Your task to perform on an android device: turn on notifications settings in the gmail app Image 0: 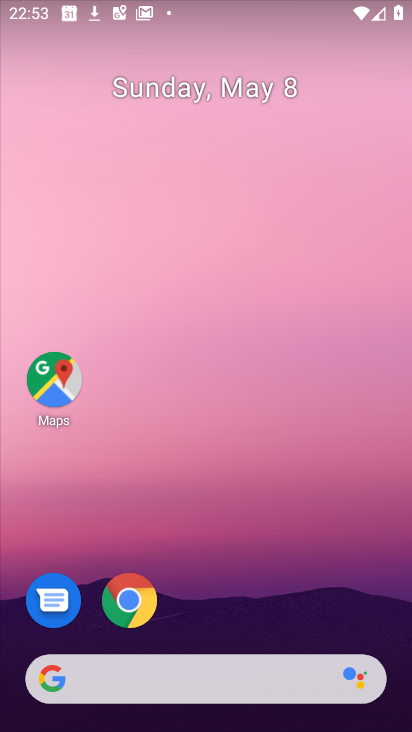
Step 0: drag from (244, 713) to (299, 204)
Your task to perform on an android device: turn on notifications settings in the gmail app Image 1: 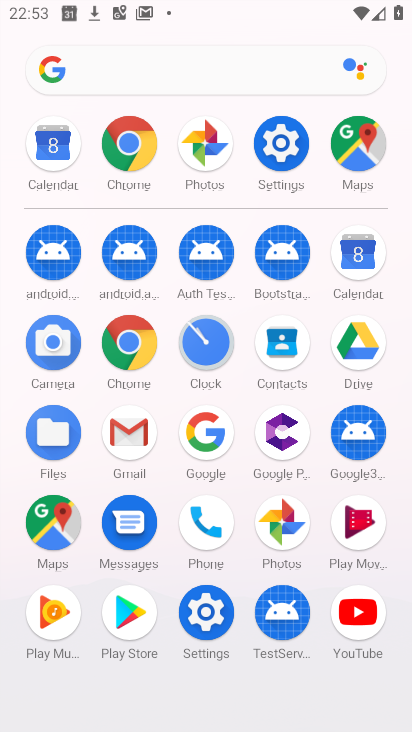
Step 1: click (214, 593)
Your task to perform on an android device: turn on notifications settings in the gmail app Image 2: 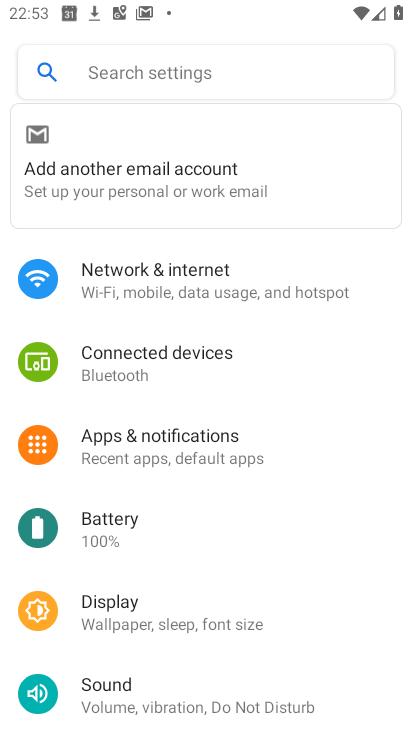
Step 2: press home button
Your task to perform on an android device: turn on notifications settings in the gmail app Image 3: 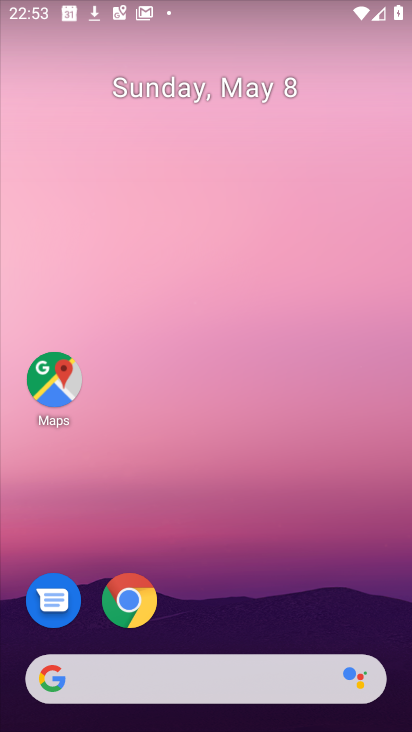
Step 3: drag from (219, 729) to (381, 153)
Your task to perform on an android device: turn on notifications settings in the gmail app Image 4: 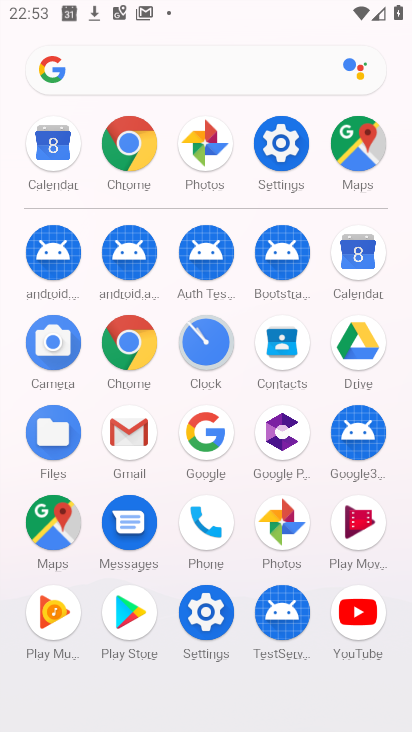
Step 4: click (146, 421)
Your task to perform on an android device: turn on notifications settings in the gmail app Image 5: 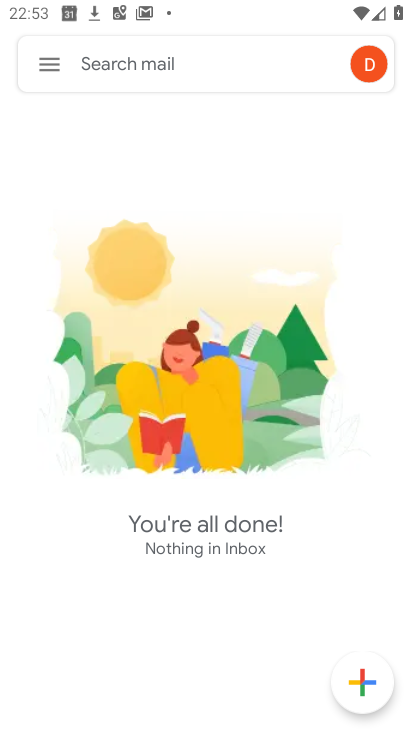
Step 5: click (37, 69)
Your task to perform on an android device: turn on notifications settings in the gmail app Image 6: 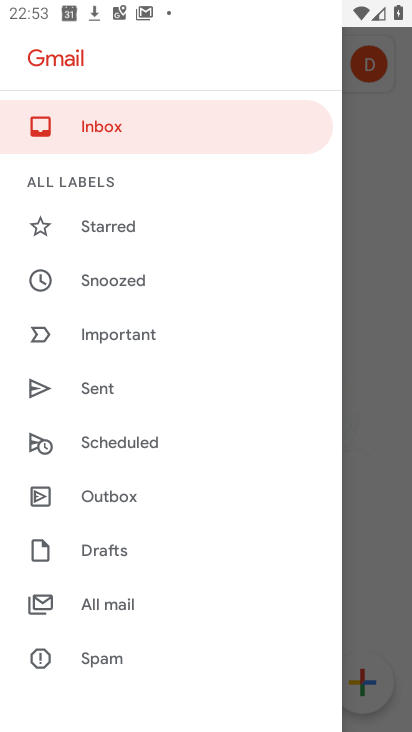
Step 6: drag from (102, 569) to (167, 354)
Your task to perform on an android device: turn on notifications settings in the gmail app Image 7: 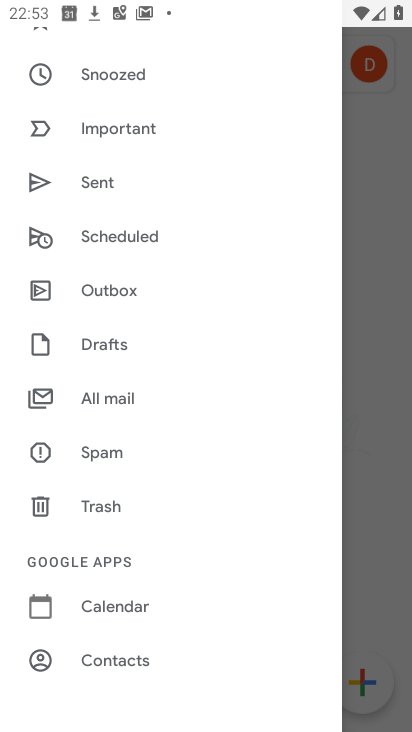
Step 7: drag from (102, 525) to (165, 403)
Your task to perform on an android device: turn on notifications settings in the gmail app Image 8: 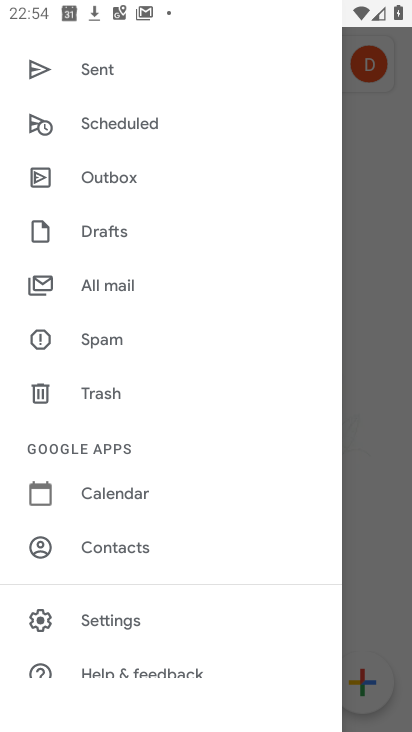
Step 8: click (125, 645)
Your task to perform on an android device: turn on notifications settings in the gmail app Image 9: 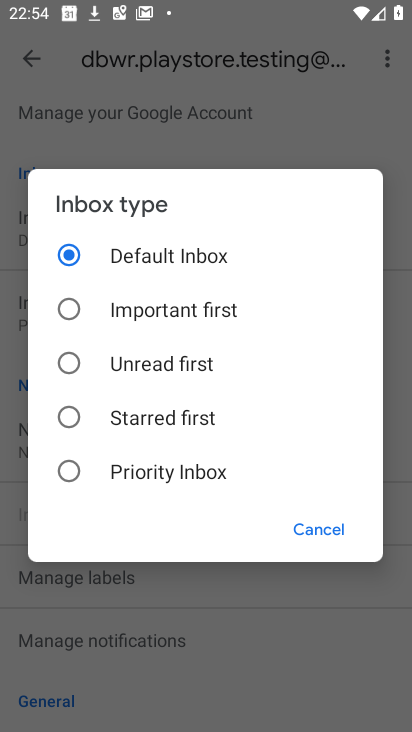
Step 9: click (305, 530)
Your task to perform on an android device: turn on notifications settings in the gmail app Image 10: 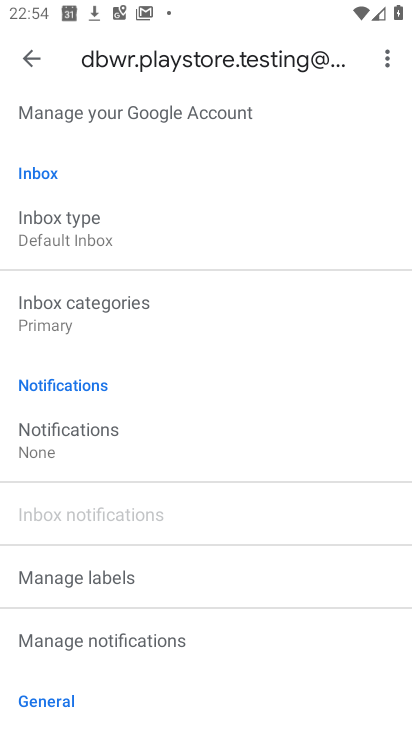
Step 10: click (113, 452)
Your task to perform on an android device: turn on notifications settings in the gmail app Image 11: 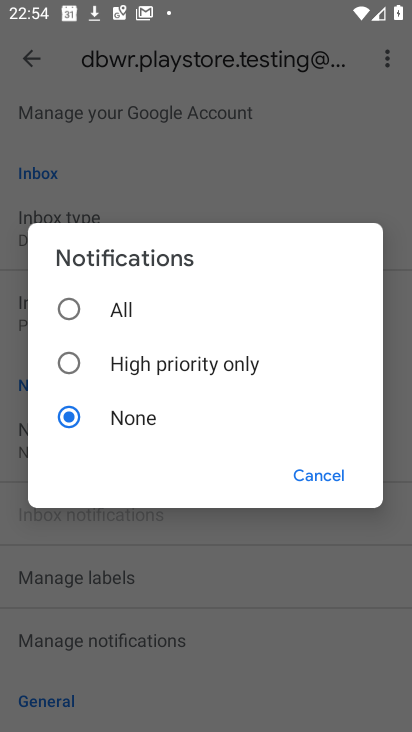
Step 11: click (124, 321)
Your task to perform on an android device: turn on notifications settings in the gmail app Image 12: 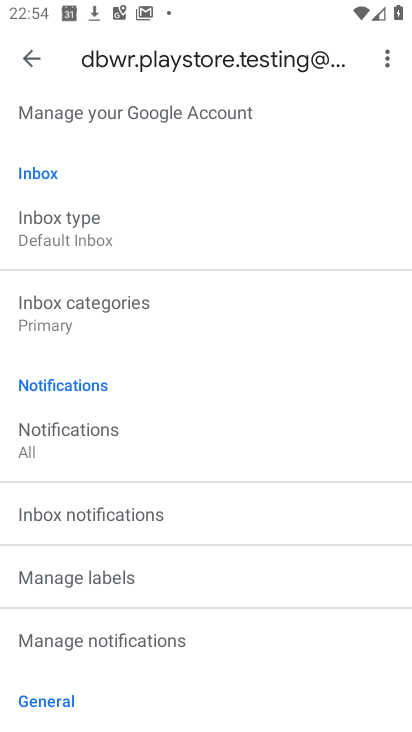
Step 12: task complete